Your task to perform on an android device: Open maps Image 0: 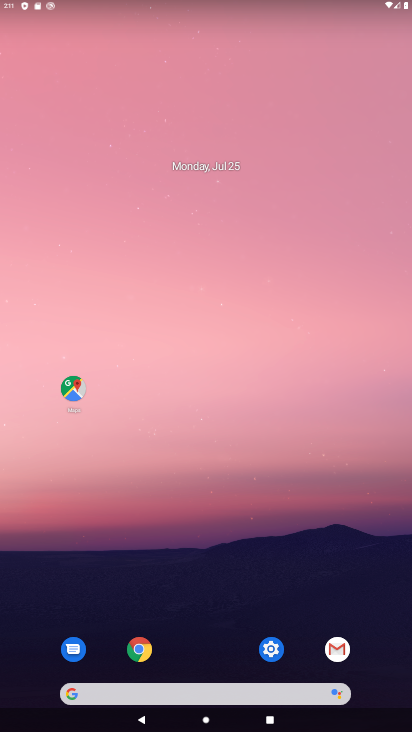
Step 0: click (83, 384)
Your task to perform on an android device: Open maps Image 1: 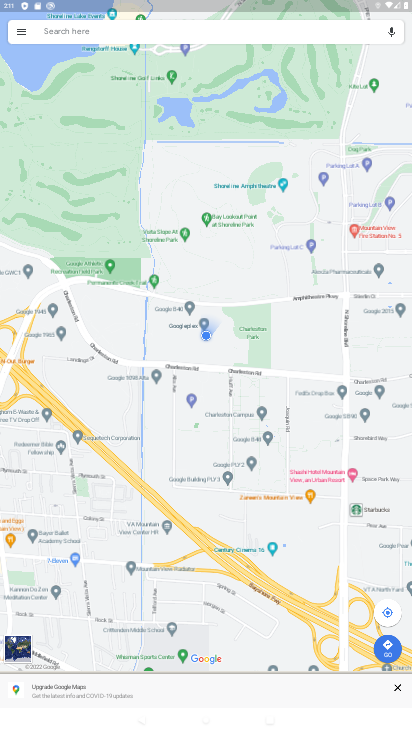
Step 1: click (388, 617)
Your task to perform on an android device: Open maps Image 2: 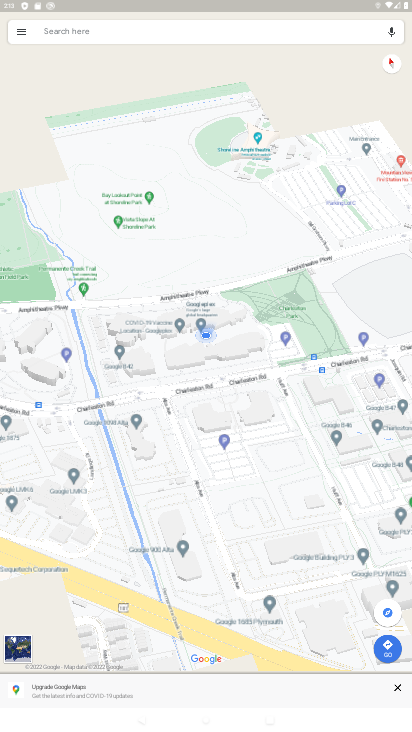
Step 2: task complete